Your task to perform on an android device: Go to sound settings Image 0: 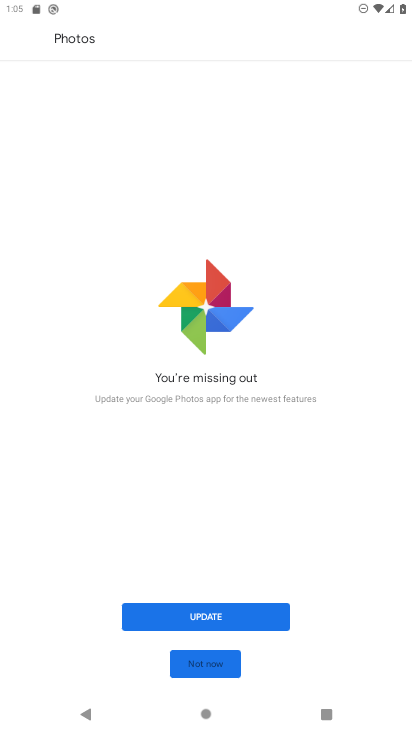
Step 0: press home button
Your task to perform on an android device: Go to sound settings Image 1: 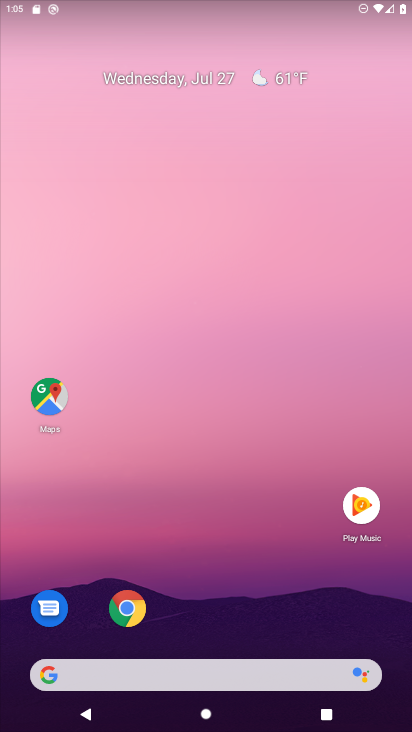
Step 1: drag from (300, 599) to (336, 119)
Your task to perform on an android device: Go to sound settings Image 2: 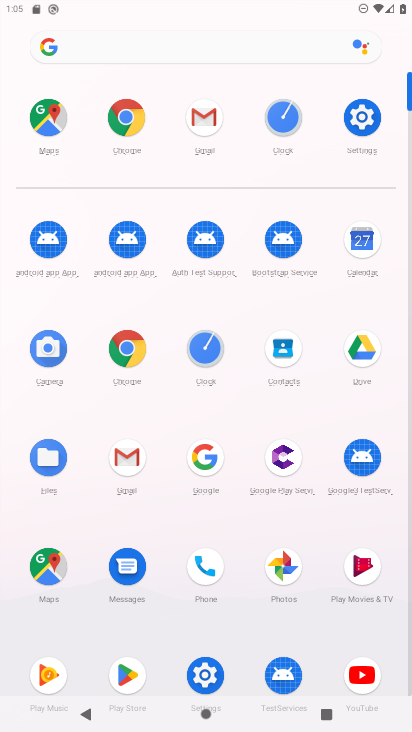
Step 2: click (362, 119)
Your task to perform on an android device: Go to sound settings Image 3: 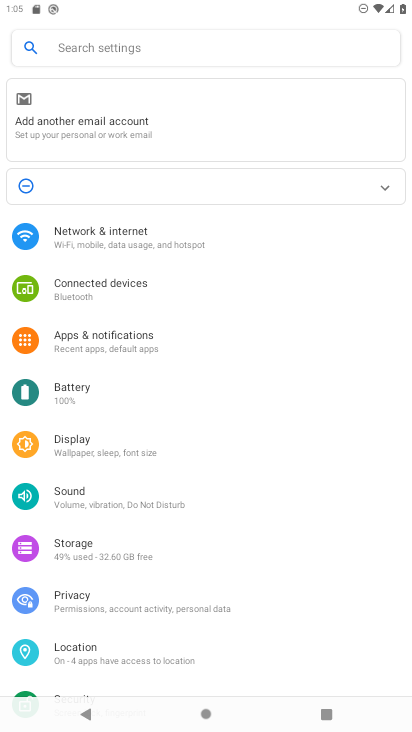
Step 3: drag from (326, 377) to (331, 319)
Your task to perform on an android device: Go to sound settings Image 4: 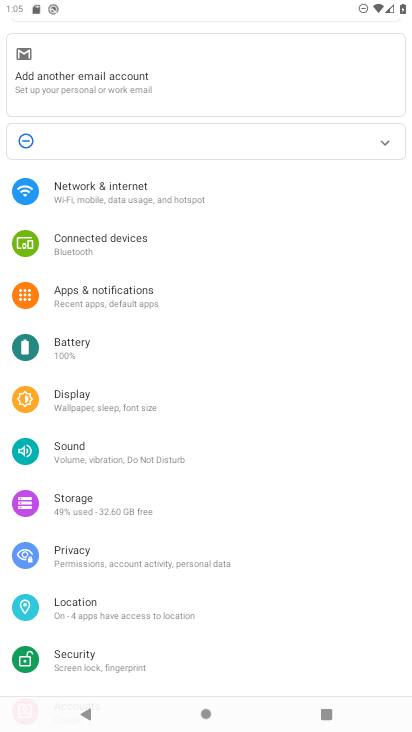
Step 4: drag from (318, 477) to (322, 420)
Your task to perform on an android device: Go to sound settings Image 5: 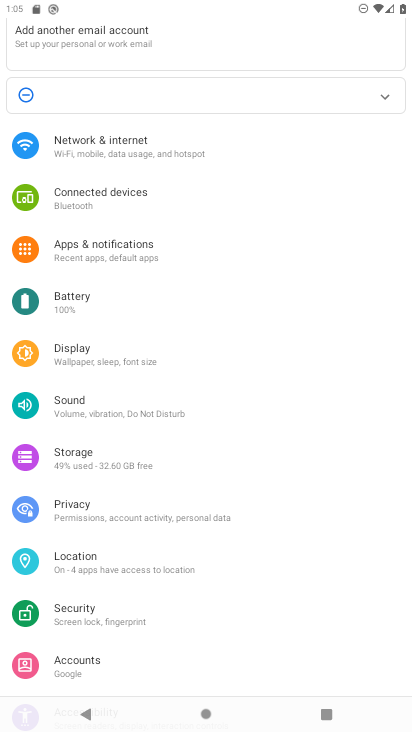
Step 5: drag from (330, 488) to (326, 414)
Your task to perform on an android device: Go to sound settings Image 6: 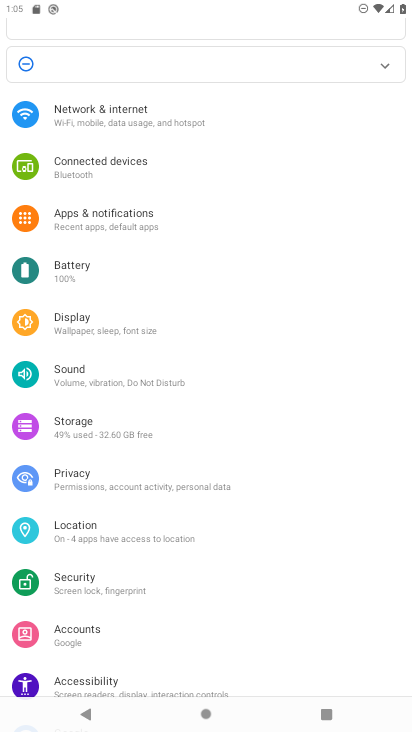
Step 6: drag from (329, 494) to (334, 451)
Your task to perform on an android device: Go to sound settings Image 7: 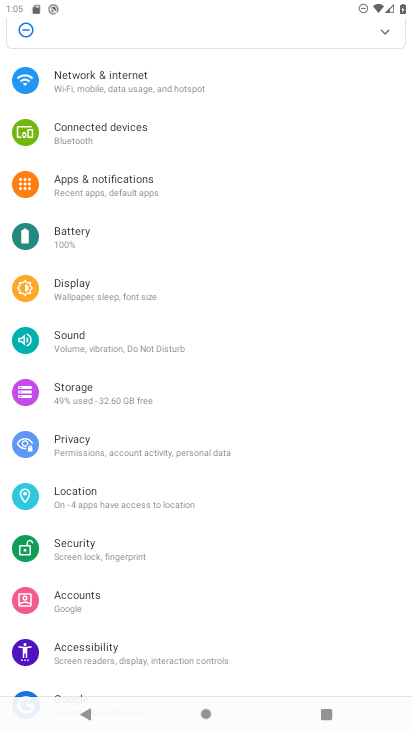
Step 7: drag from (330, 532) to (335, 471)
Your task to perform on an android device: Go to sound settings Image 8: 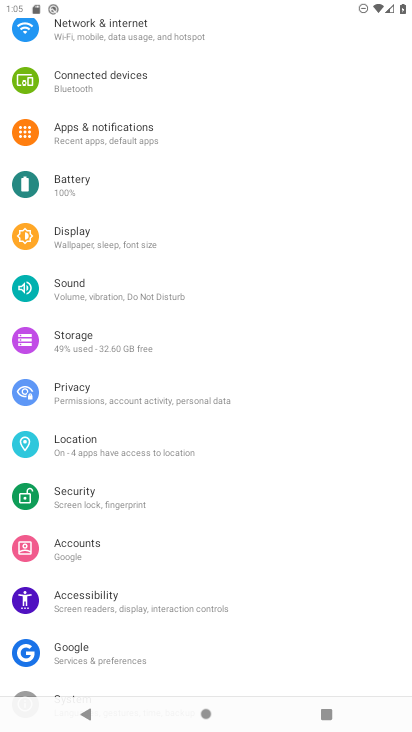
Step 8: drag from (315, 529) to (322, 484)
Your task to perform on an android device: Go to sound settings Image 9: 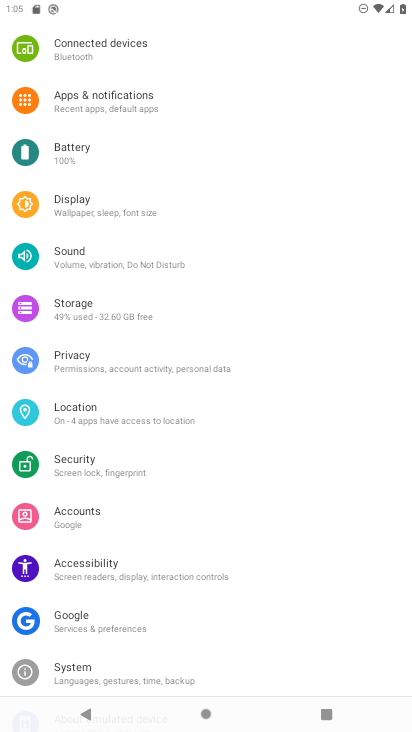
Step 9: drag from (306, 550) to (313, 478)
Your task to perform on an android device: Go to sound settings Image 10: 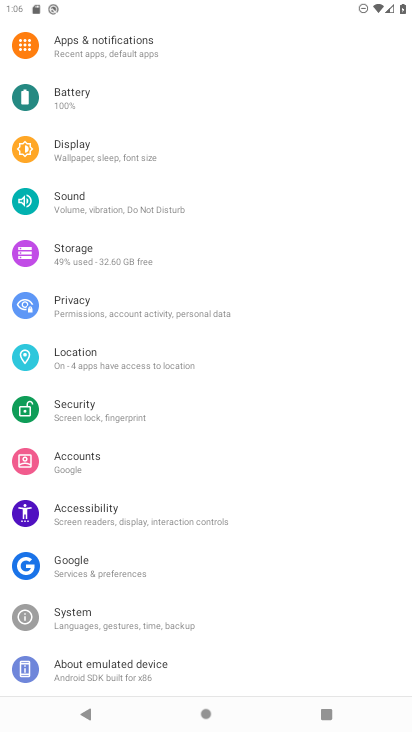
Step 10: click (321, 556)
Your task to perform on an android device: Go to sound settings Image 11: 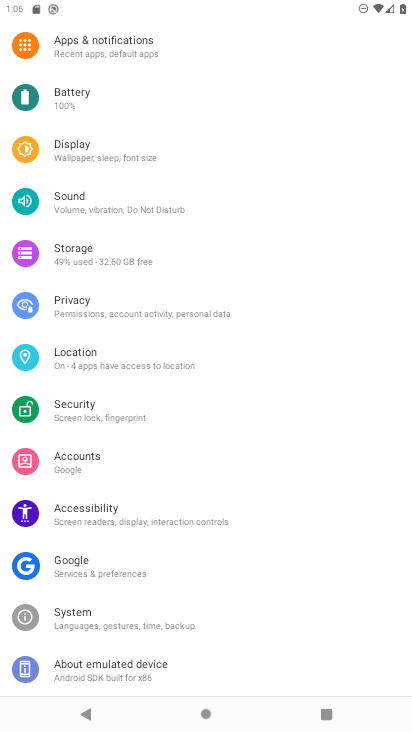
Step 11: drag from (330, 348) to (325, 386)
Your task to perform on an android device: Go to sound settings Image 12: 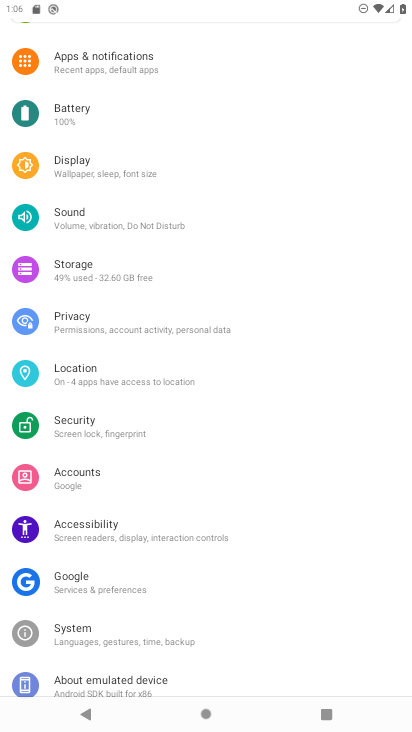
Step 12: drag from (336, 289) to (337, 347)
Your task to perform on an android device: Go to sound settings Image 13: 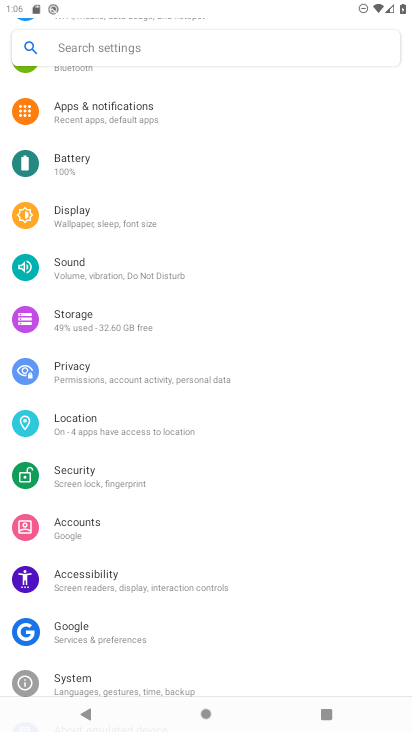
Step 13: drag from (337, 279) to (335, 389)
Your task to perform on an android device: Go to sound settings Image 14: 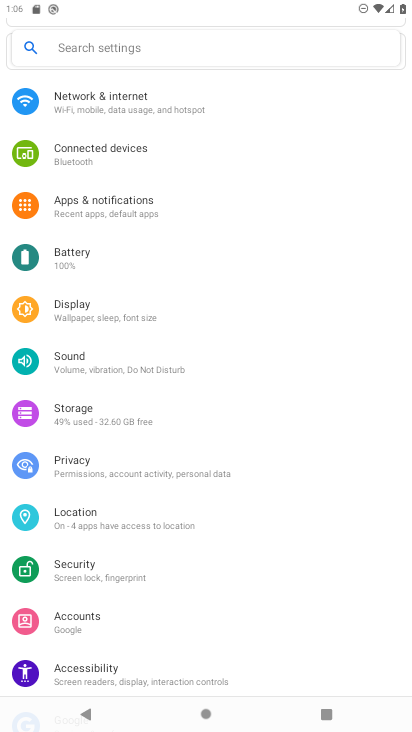
Step 14: drag from (249, 281) to (250, 498)
Your task to perform on an android device: Go to sound settings Image 15: 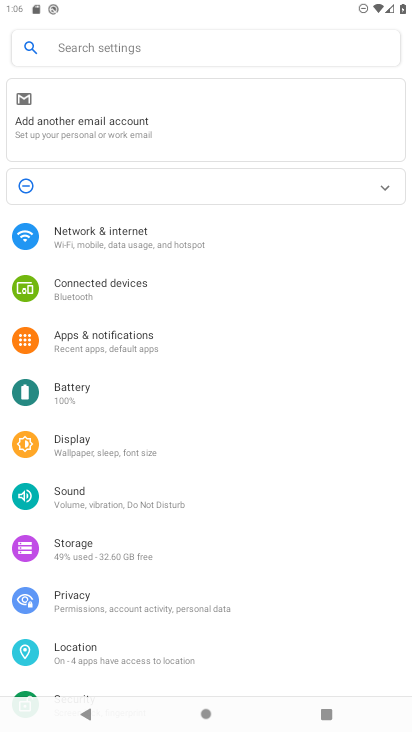
Step 15: click (209, 498)
Your task to perform on an android device: Go to sound settings Image 16: 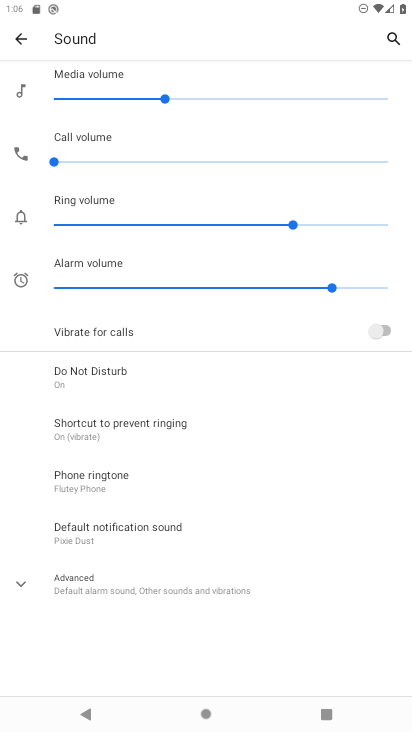
Step 16: task complete